Your task to perform on an android device: star an email in the gmail app Image 0: 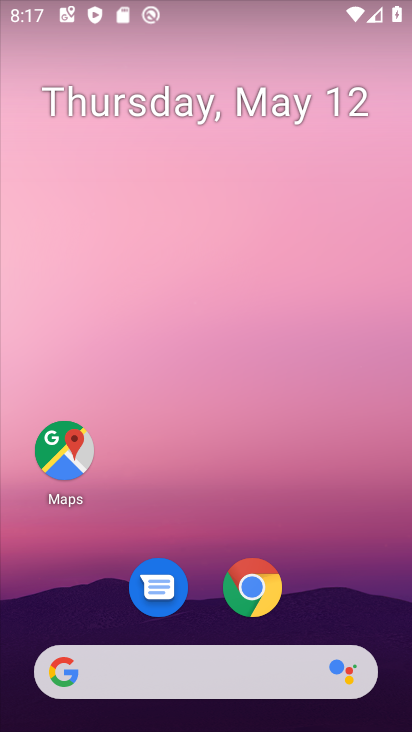
Step 0: drag from (316, 362) to (280, 223)
Your task to perform on an android device: star an email in the gmail app Image 1: 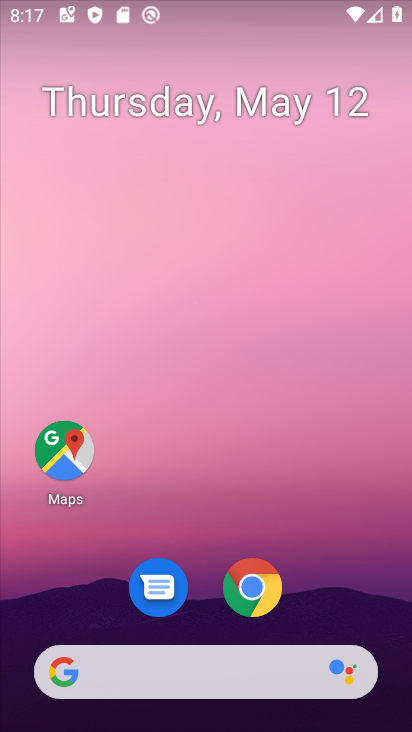
Step 1: drag from (303, 568) to (203, 99)
Your task to perform on an android device: star an email in the gmail app Image 2: 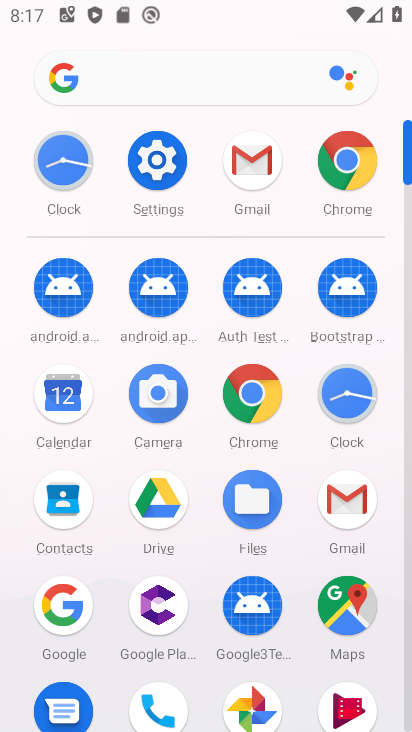
Step 2: click (333, 494)
Your task to perform on an android device: star an email in the gmail app Image 3: 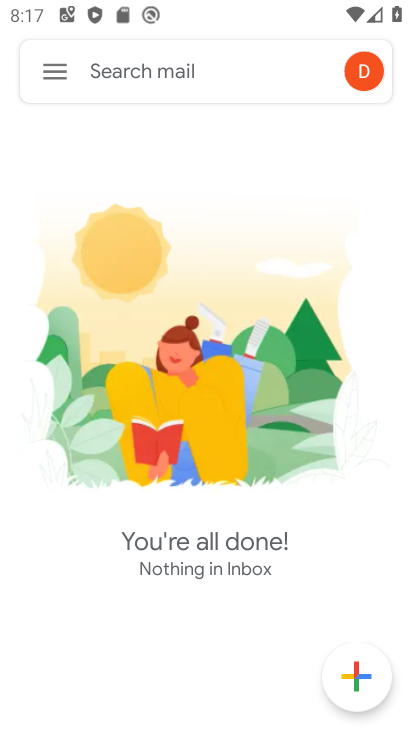
Step 3: click (43, 74)
Your task to perform on an android device: star an email in the gmail app Image 4: 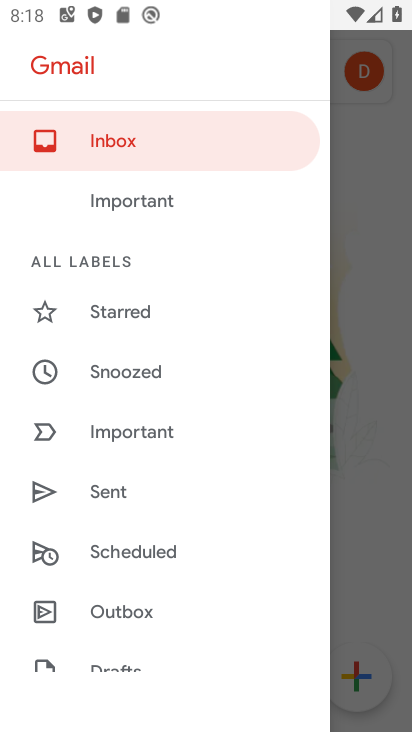
Step 4: click (133, 308)
Your task to perform on an android device: star an email in the gmail app Image 5: 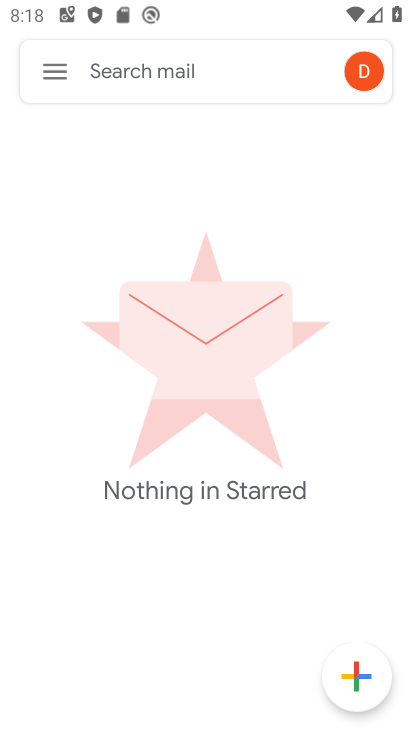
Step 5: task complete